Your task to perform on an android device: remove spam from my inbox in the gmail app Image 0: 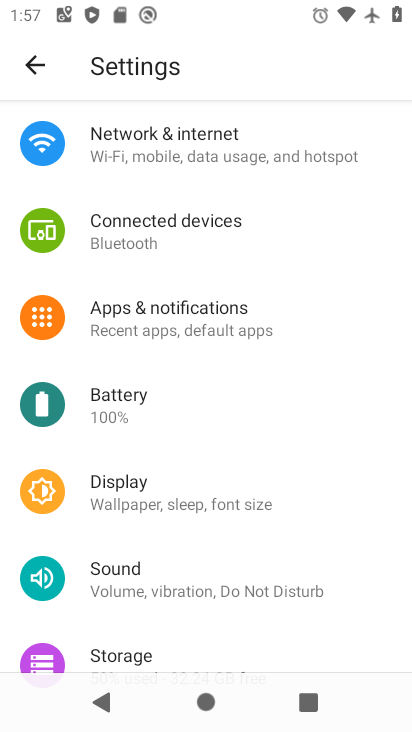
Step 0: press home button
Your task to perform on an android device: remove spam from my inbox in the gmail app Image 1: 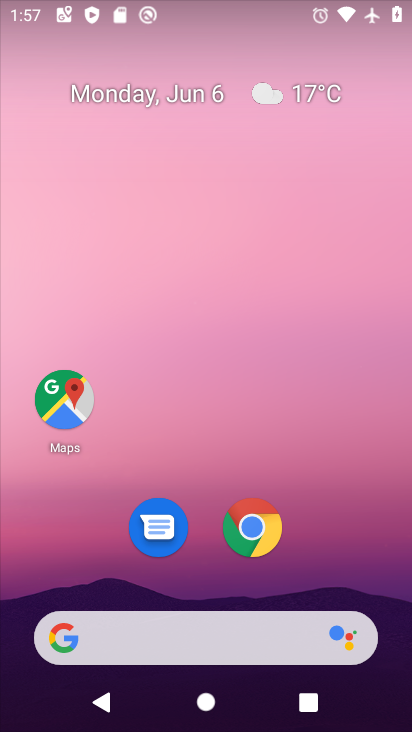
Step 1: drag from (366, 575) to (252, 0)
Your task to perform on an android device: remove spam from my inbox in the gmail app Image 2: 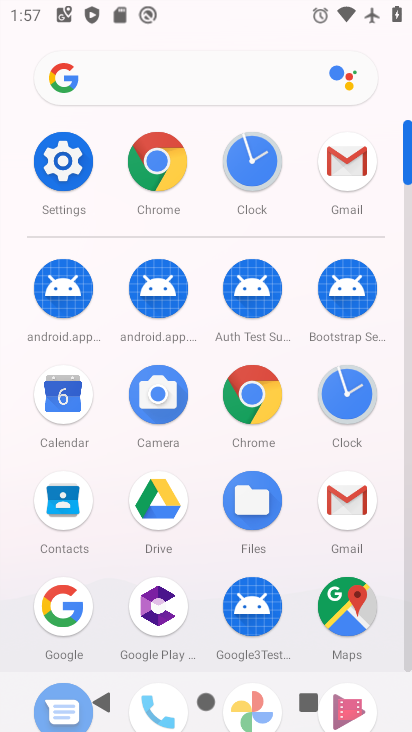
Step 2: click (356, 157)
Your task to perform on an android device: remove spam from my inbox in the gmail app Image 3: 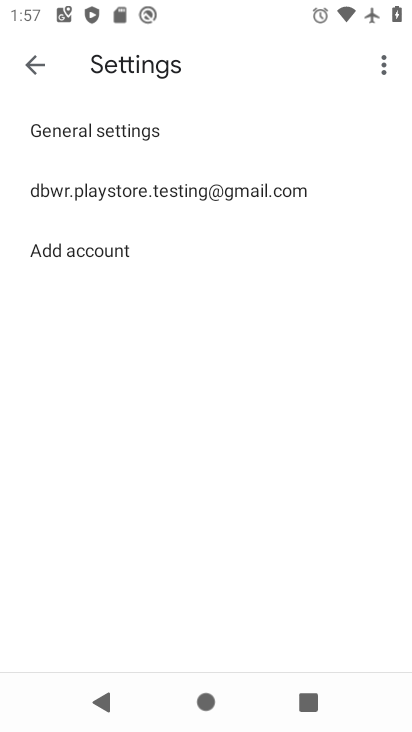
Step 3: click (34, 58)
Your task to perform on an android device: remove spam from my inbox in the gmail app Image 4: 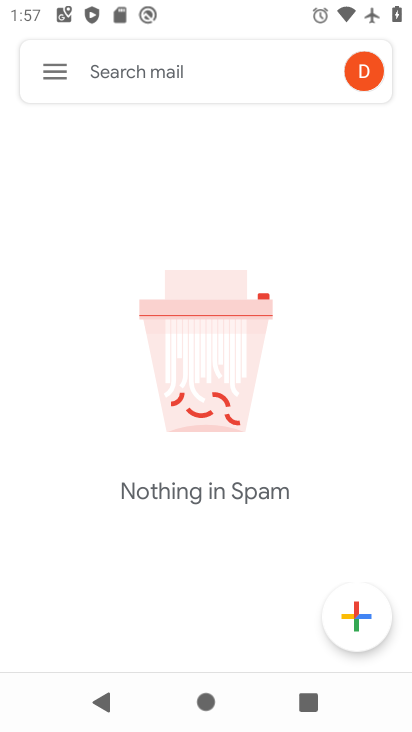
Step 4: click (46, 75)
Your task to perform on an android device: remove spam from my inbox in the gmail app Image 5: 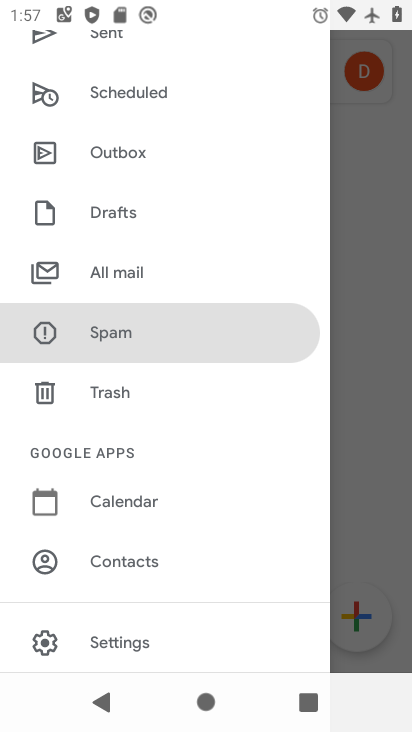
Step 5: click (229, 335)
Your task to perform on an android device: remove spam from my inbox in the gmail app Image 6: 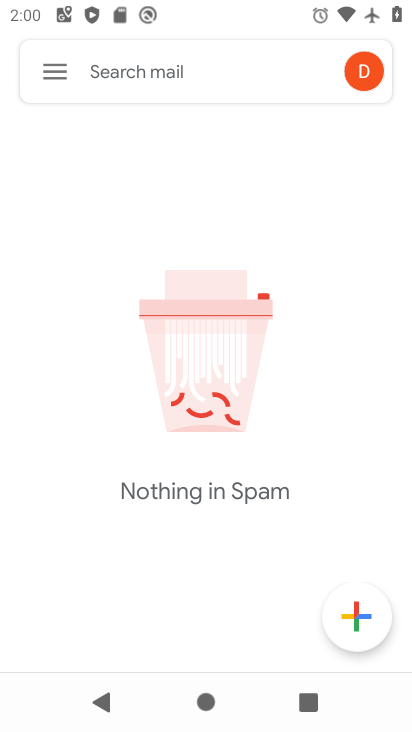
Step 6: task complete